Your task to perform on an android device: turn on the 24-hour format for clock Image 0: 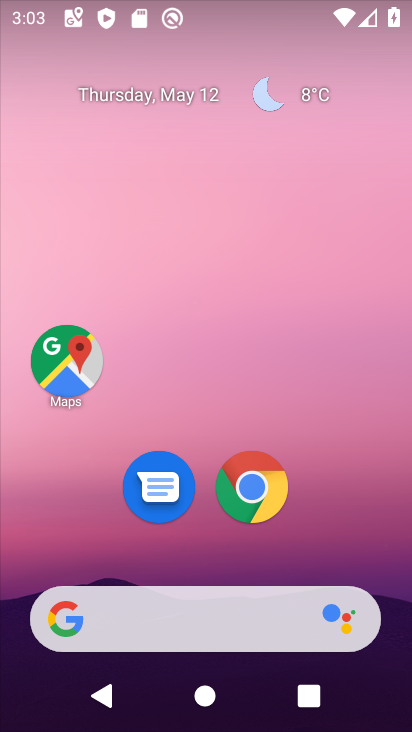
Step 0: drag from (323, 467) to (208, 28)
Your task to perform on an android device: turn on the 24-hour format for clock Image 1: 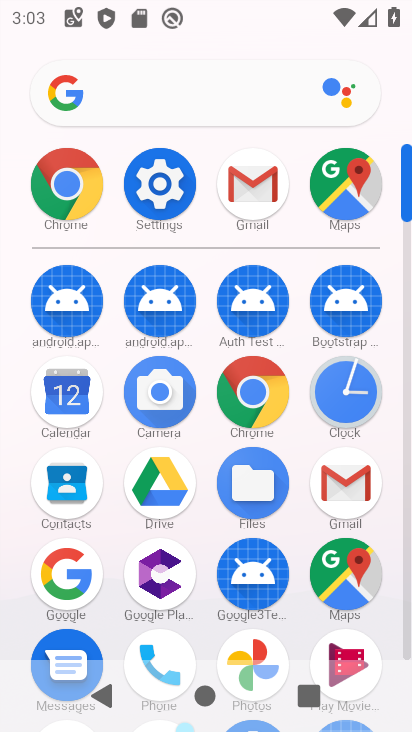
Step 1: click (365, 379)
Your task to perform on an android device: turn on the 24-hour format for clock Image 2: 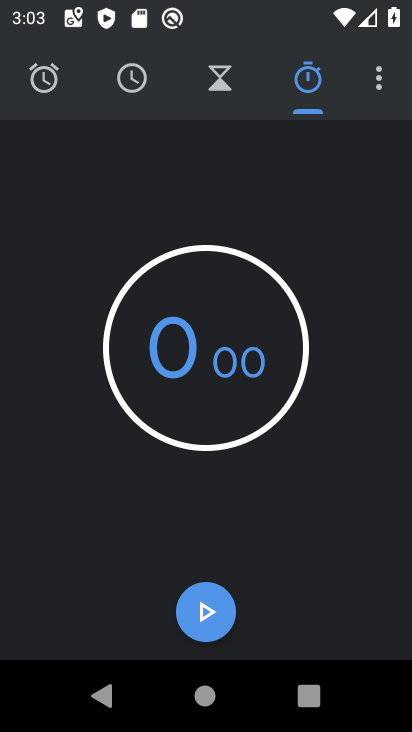
Step 2: drag from (378, 76) to (241, 150)
Your task to perform on an android device: turn on the 24-hour format for clock Image 3: 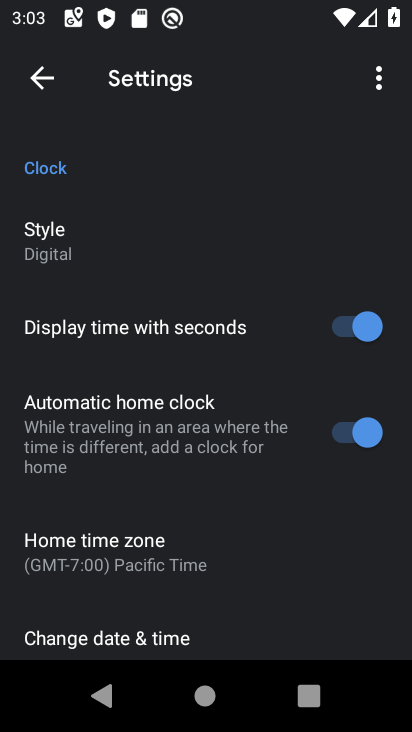
Step 3: drag from (239, 506) to (242, 307)
Your task to perform on an android device: turn on the 24-hour format for clock Image 4: 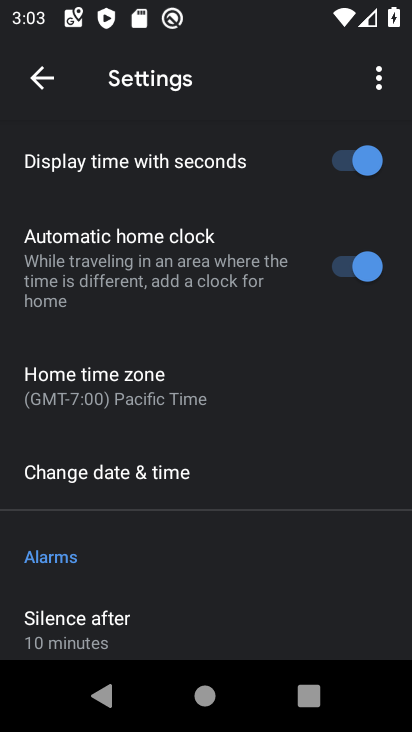
Step 4: click (159, 480)
Your task to perform on an android device: turn on the 24-hour format for clock Image 5: 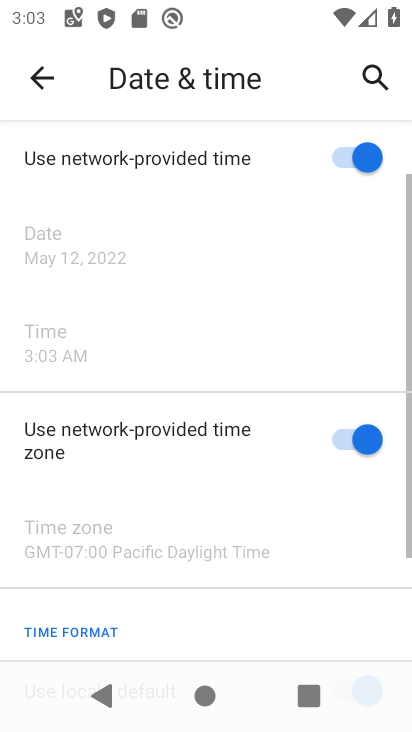
Step 5: drag from (194, 540) to (198, 12)
Your task to perform on an android device: turn on the 24-hour format for clock Image 6: 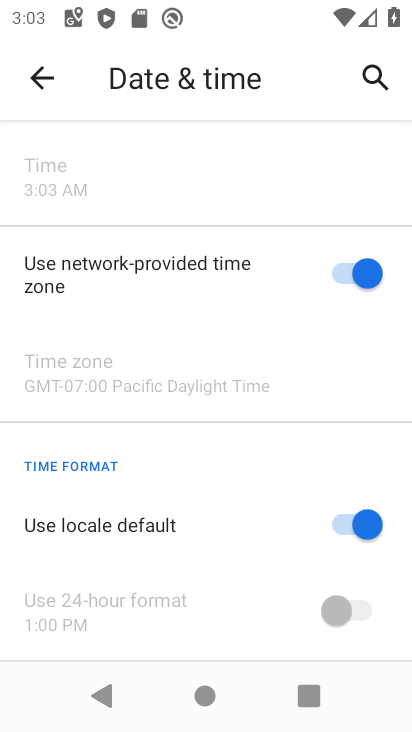
Step 6: click (358, 503)
Your task to perform on an android device: turn on the 24-hour format for clock Image 7: 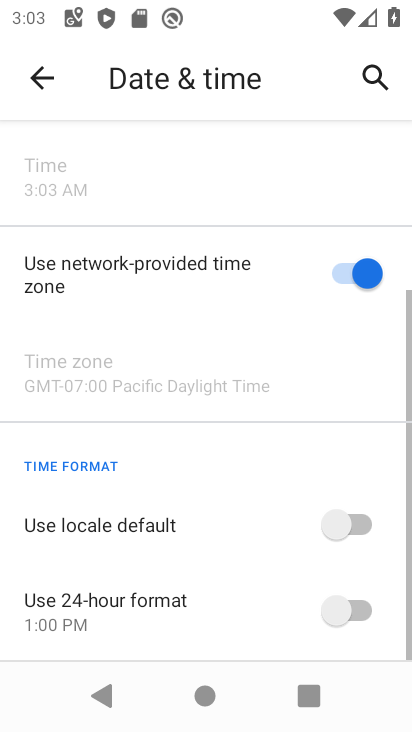
Step 7: click (347, 621)
Your task to perform on an android device: turn on the 24-hour format for clock Image 8: 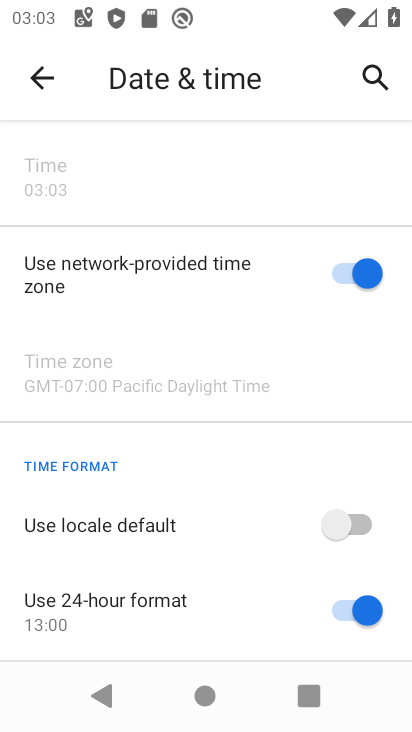
Step 8: task complete